Your task to perform on an android device: refresh tabs in the chrome app Image 0: 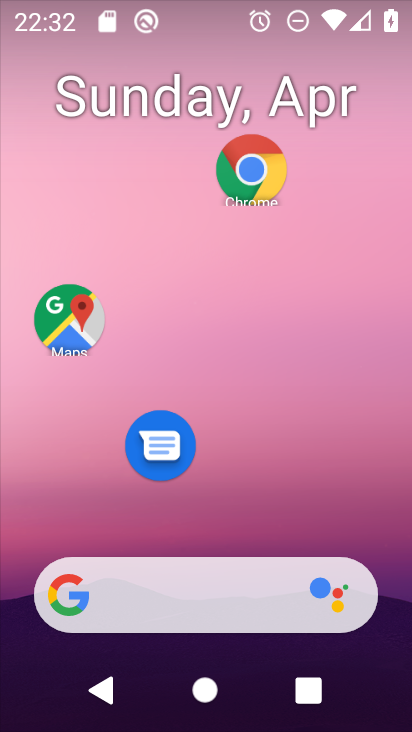
Step 0: click (246, 173)
Your task to perform on an android device: refresh tabs in the chrome app Image 1: 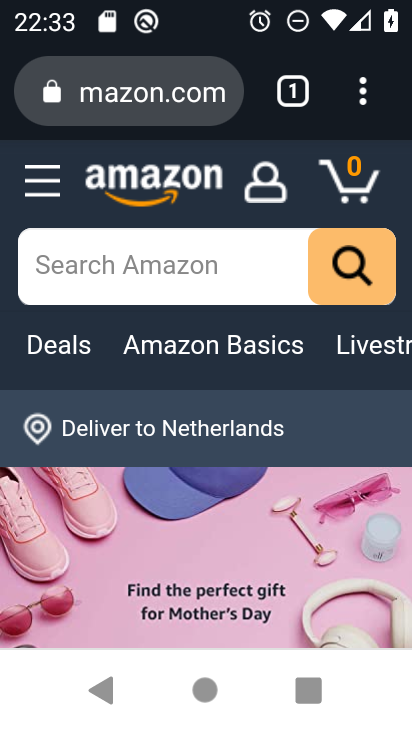
Step 1: click (357, 91)
Your task to perform on an android device: refresh tabs in the chrome app Image 2: 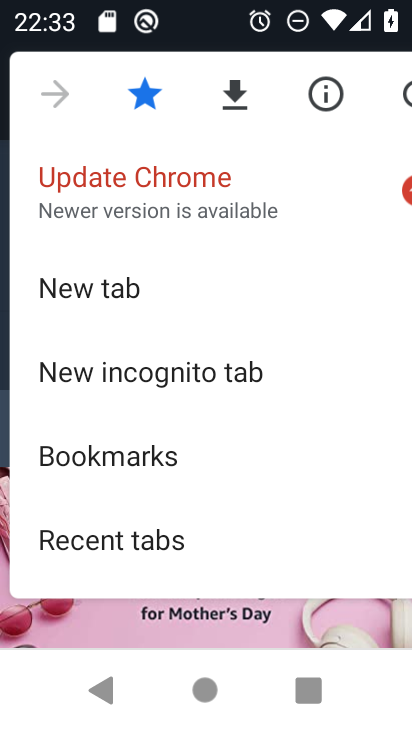
Step 2: click (409, 94)
Your task to perform on an android device: refresh tabs in the chrome app Image 3: 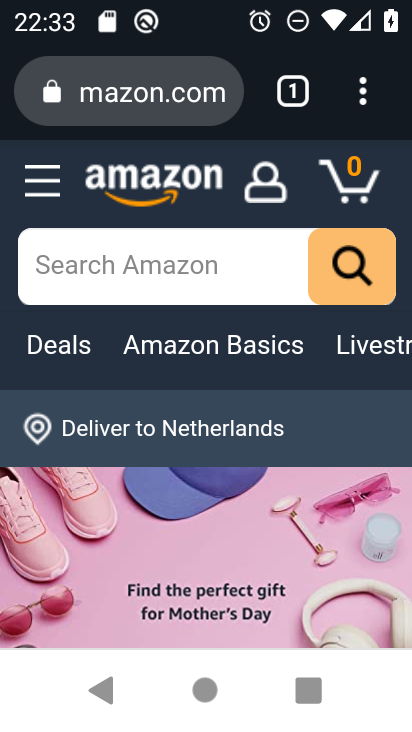
Step 3: task complete